Your task to perform on an android device: Open internet settings Image 0: 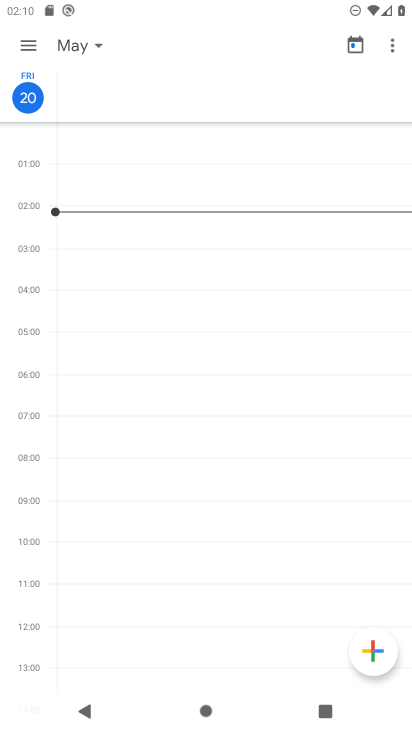
Step 0: press home button
Your task to perform on an android device: Open internet settings Image 1: 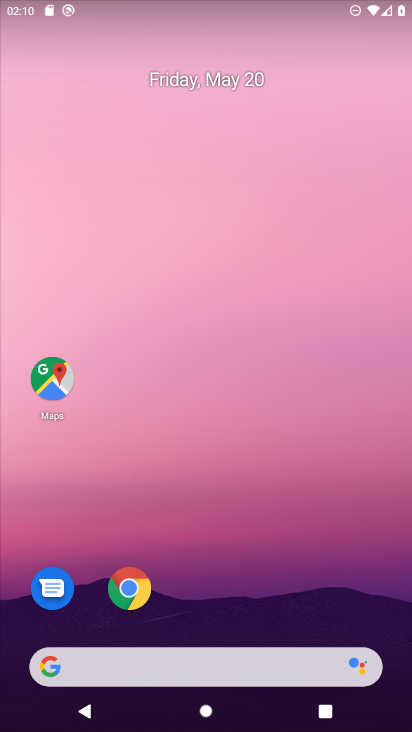
Step 1: drag from (379, 619) to (312, 82)
Your task to perform on an android device: Open internet settings Image 2: 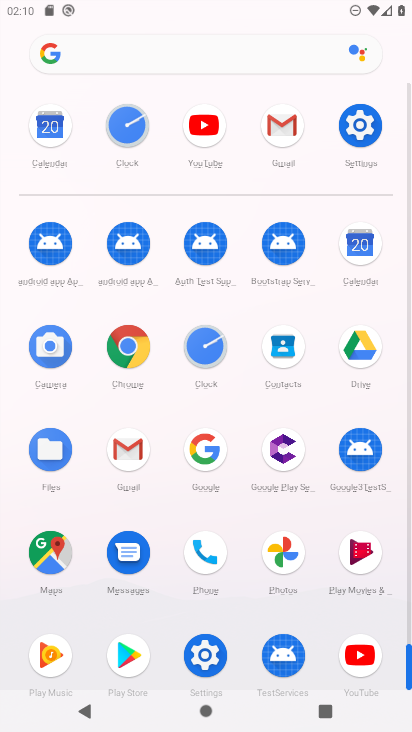
Step 2: click (204, 659)
Your task to perform on an android device: Open internet settings Image 3: 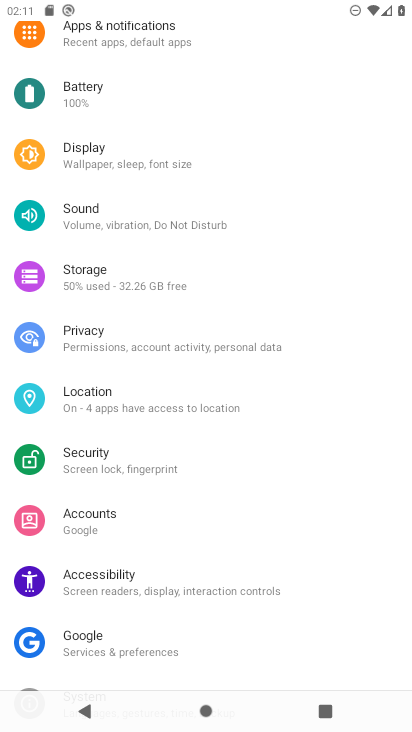
Step 3: drag from (304, 80) to (301, 401)
Your task to perform on an android device: Open internet settings Image 4: 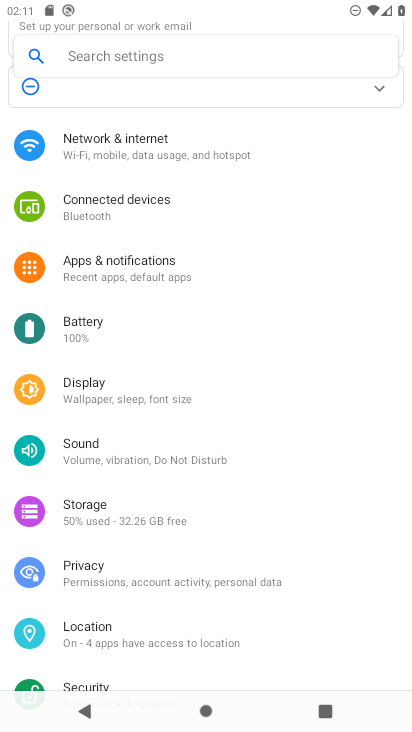
Step 4: click (103, 148)
Your task to perform on an android device: Open internet settings Image 5: 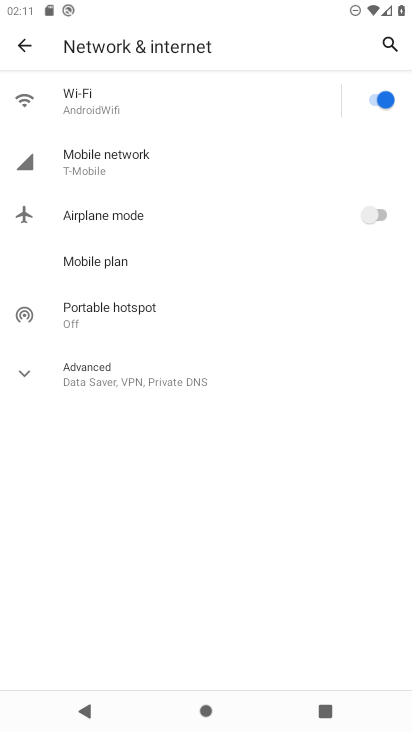
Step 5: click (24, 374)
Your task to perform on an android device: Open internet settings Image 6: 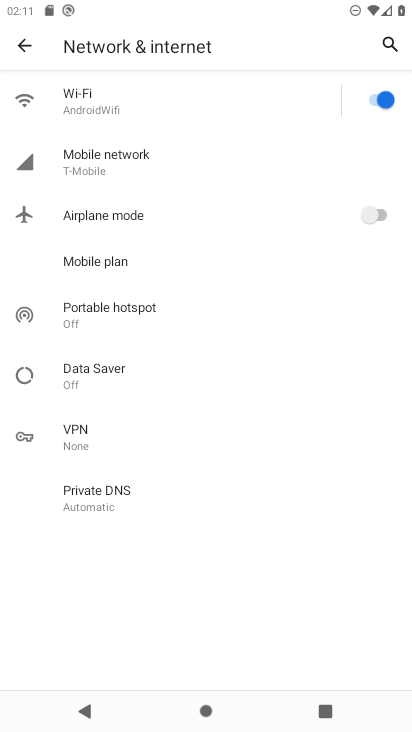
Step 6: click (99, 150)
Your task to perform on an android device: Open internet settings Image 7: 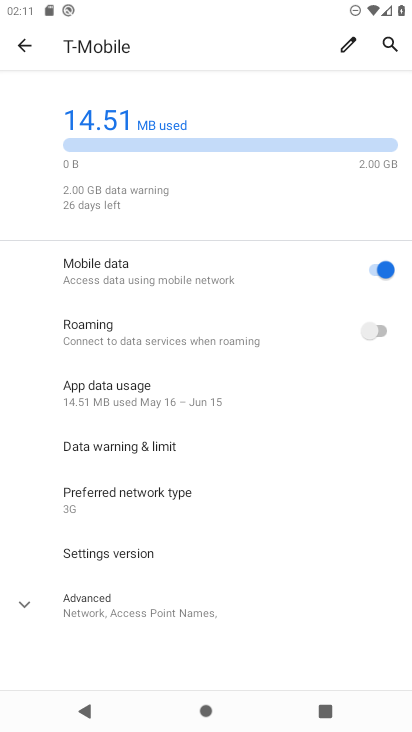
Step 7: click (14, 607)
Your task to perform on an android device: Open internet settings Image 8: 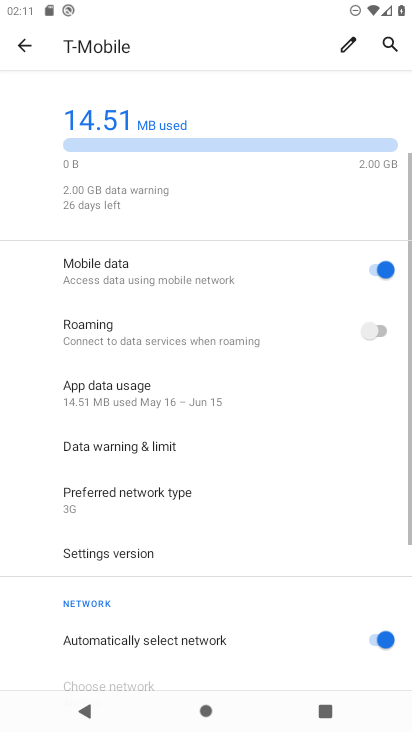
Step 8: task complete